Your task to perform on an android device: Go to battery settings Image 0: 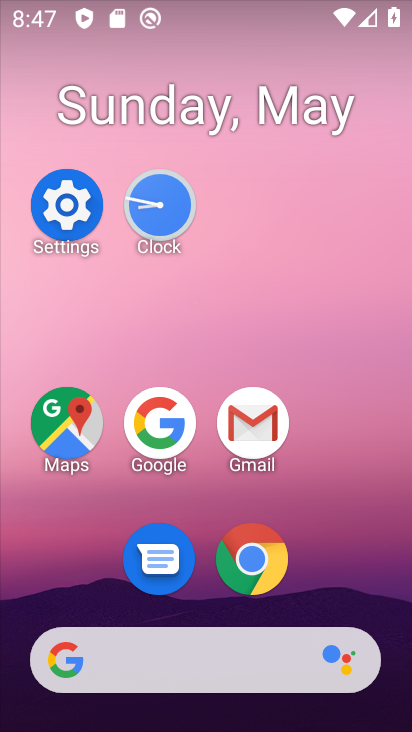
Step 0: click (63, 197)
Your task to perform on an android device: Go to battery settings Image 1: 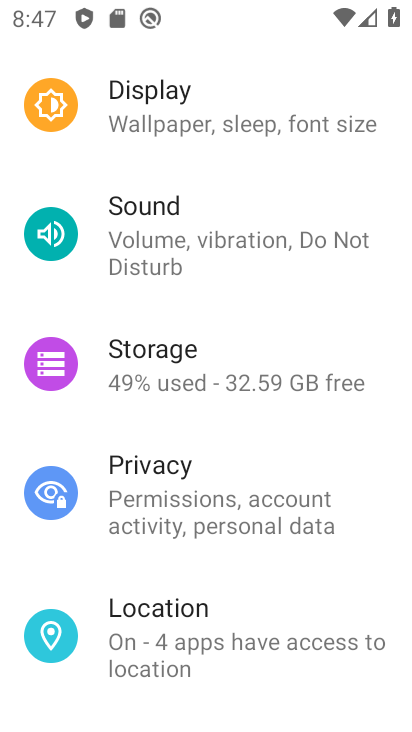
Step 1: drag from (253, 556) to (262, 321)
Your task to perform on an android device: Go to battery settings Image 2: 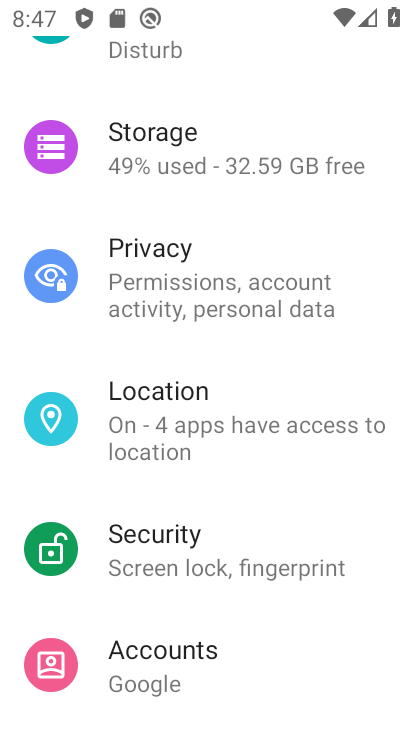
Step 2: drag from (350, 258) to (240, 680)
Your task to perform on an android device: Go to battery settings Image 3: 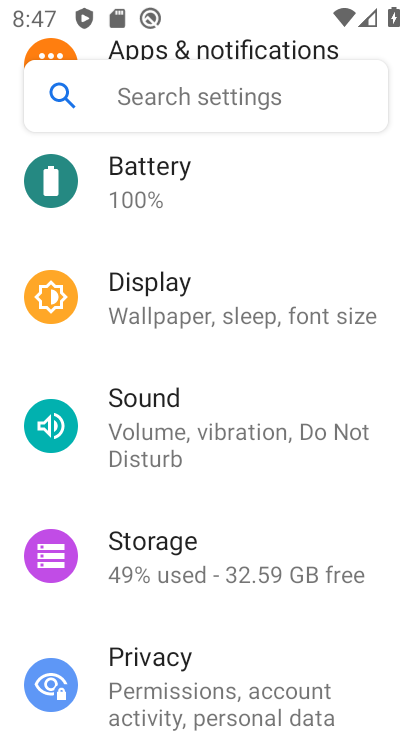
Step 3: click (215, 203)
Your task to perform on an android device: Go to battery settings Image 4: 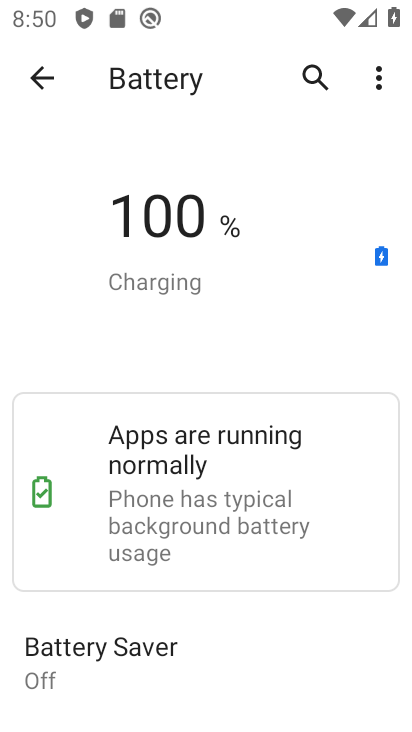
Step 4: task complete